Your task to perform on an android device: change timer sound Image 0: 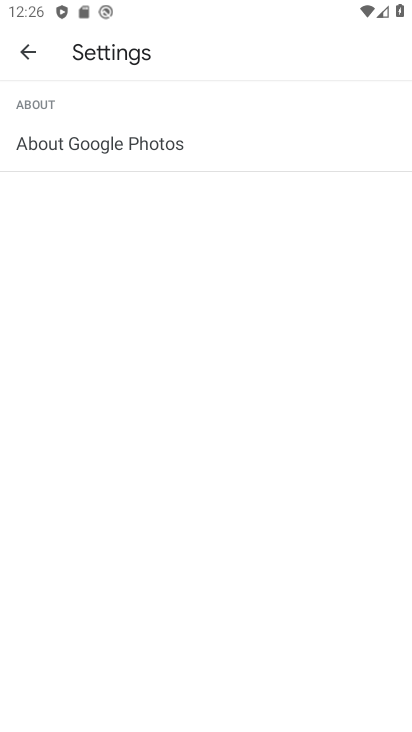
Step 0: press home button
Your task to perform on an android device: change timer sound Image 1: 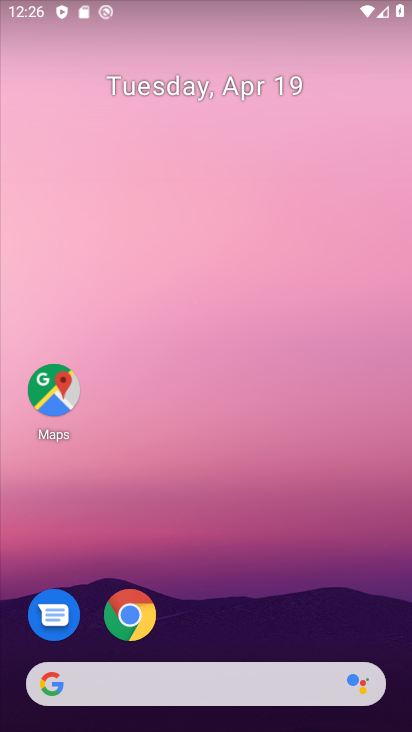
Step 1: drag from (273, 616) to (291, 79)
Your task to perform on an android device: change timer sound Image 2: 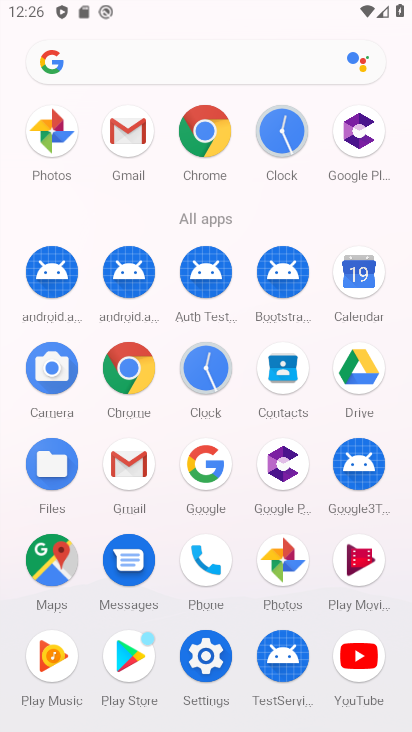
Step 2: click (207, 357)
Your task to perform on an android device: change timer sound Image 3: 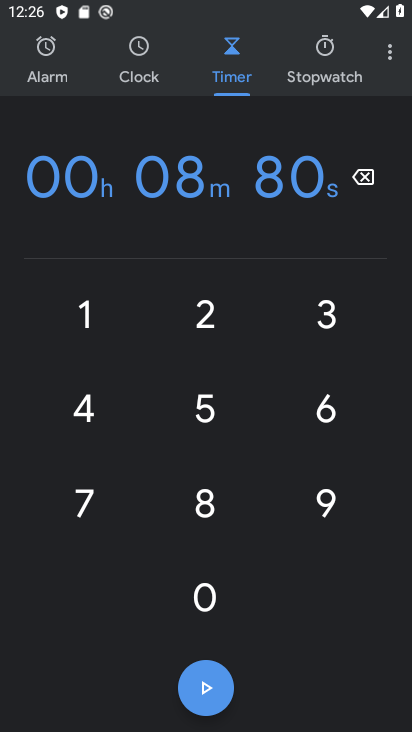
Step 3: click (389, 56)
Your task to perform on an android device: change timer sound Image 4: 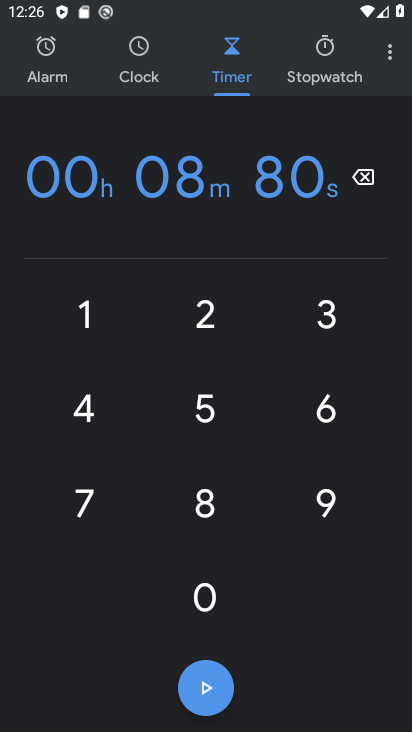
Step 4: click (392, 51)
Your task to perform on an android device: change timer sound Image 5: 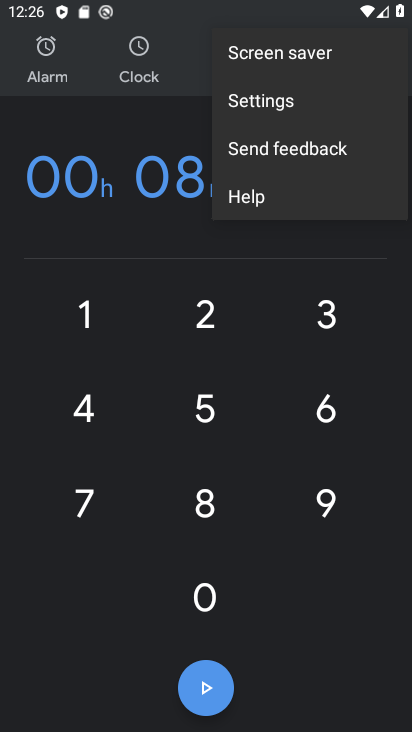
Step 5: click (269, 100)
Your task to perform on an android device: change timer sound Image 6: 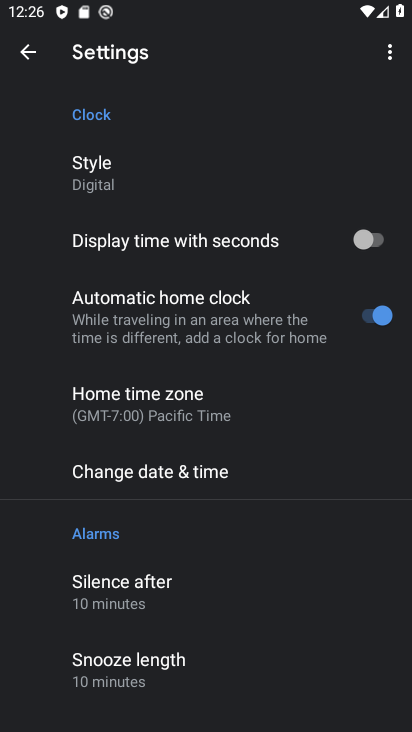
Step 6: drag from (267, 571) to (262, 130)
Your task to perform on an android device: change timer sound Image 7: 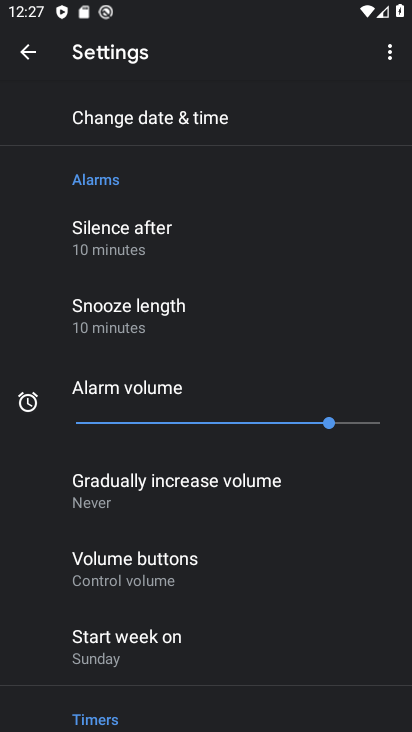
Step 7: drag from (234, 623) to (257, 264)
Your task to perform on an android device: change timer sound Image 8: 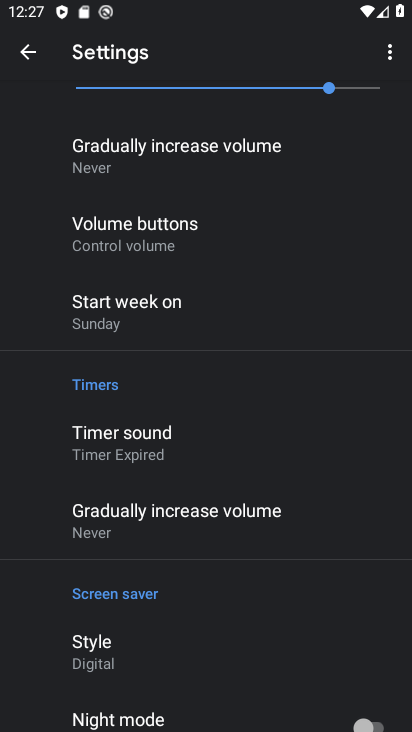
Step 8: click (116, 454)
Your task to perform on an android device: change timer sound Image 9: 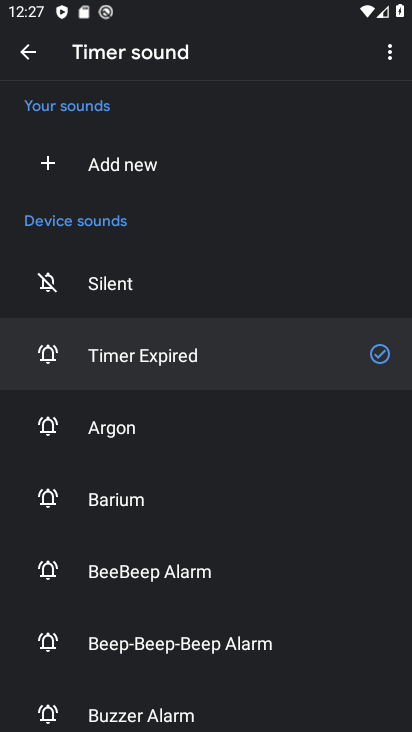
Step 9: click (227, 440)
Your task to perform on an android device: change timer sound Image 10: 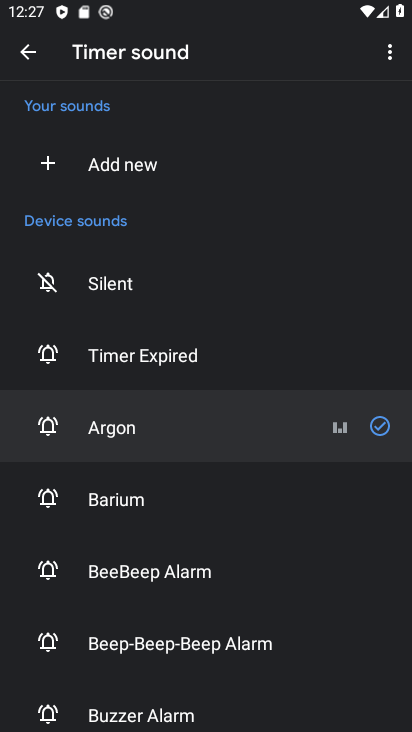
Step 10: click (387, 425)
Your task to perform on an android device: change timer sound Image 11: 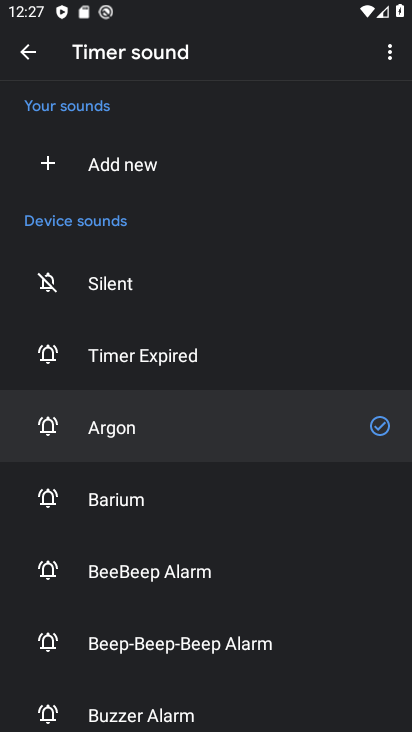
Step 11: task complete